Your task to perform on an android device: turn on sleep mode Image 0: 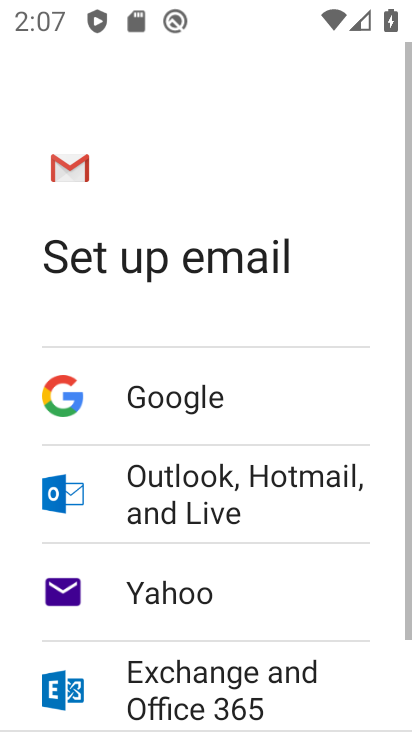
Step 0: press home button
Your task to perform on an android device: turn on sleep mode Image 1: 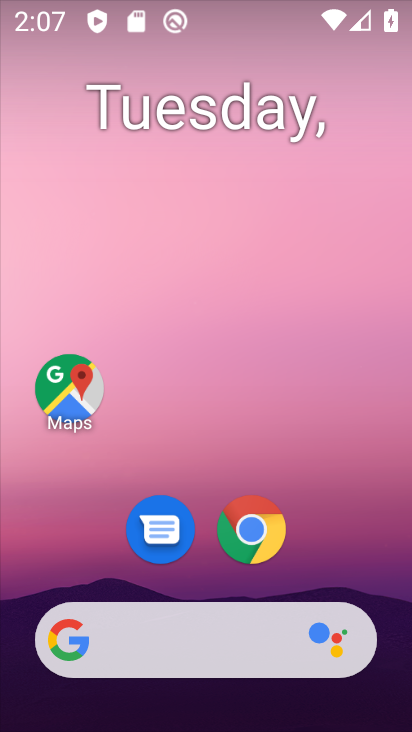
Step 1: drag from (301, 549) to (296, 0)
Your task to perform on an android device: turn on sleep mode Image 2: 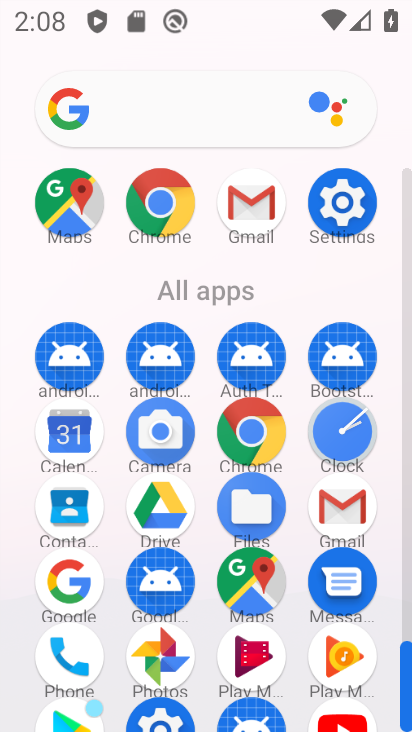
Step 2: click (348, 208)
Your task to perform on an android device: turn on sleep mode Image 3: 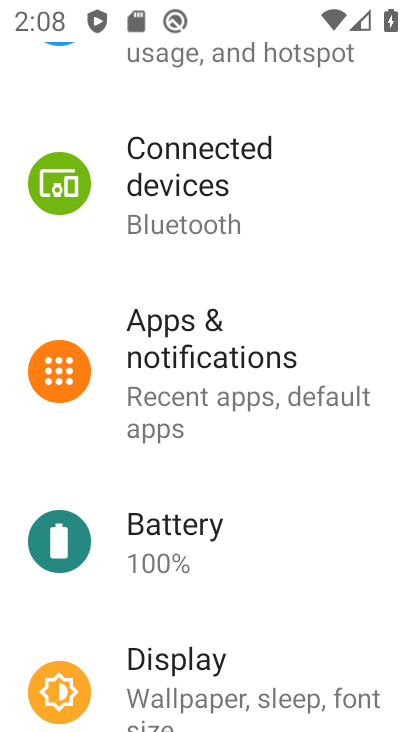
Step 3: drag from (243, 667) to (328, 336)
Your task to perform on an android device: turn on sleep mode Image 4: 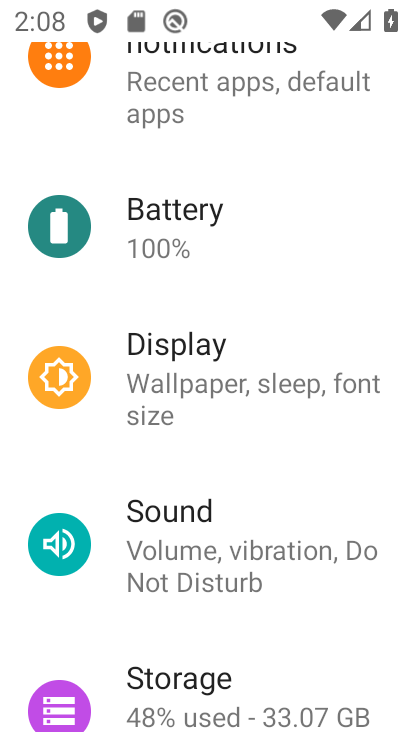
Step 4: click (301, 550)
Your task to perform on an android device: turn on sleep mode Image 5: 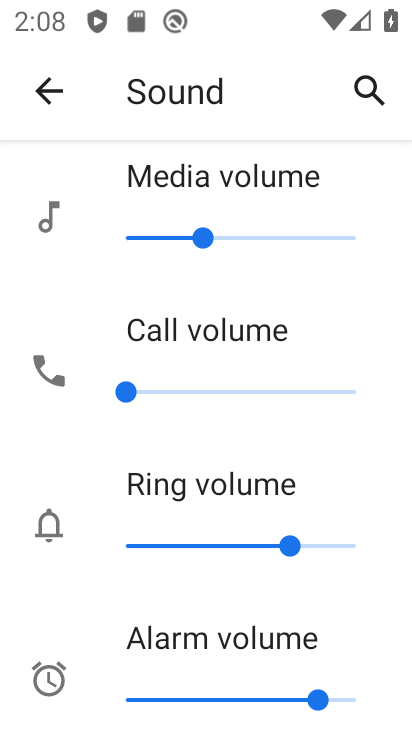
Step 5: click (38, 76)
Your task to perform on an android device: turn on sleep mode Image 6: 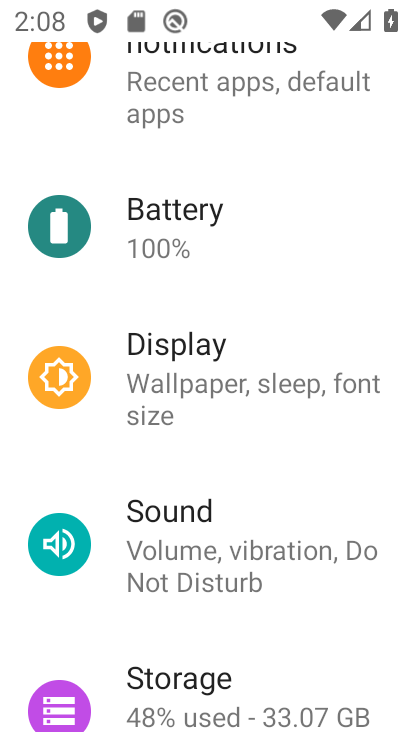
Step 6: task complete